Your task to perform on an android device: allow cookies in the chrome app Image 0: 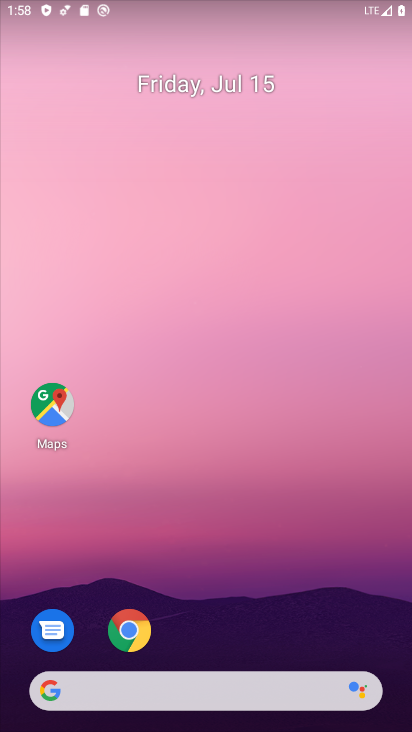
Step 0: press home button
Your task to perform on an android device: allow cookies in the chrome app Image 1: 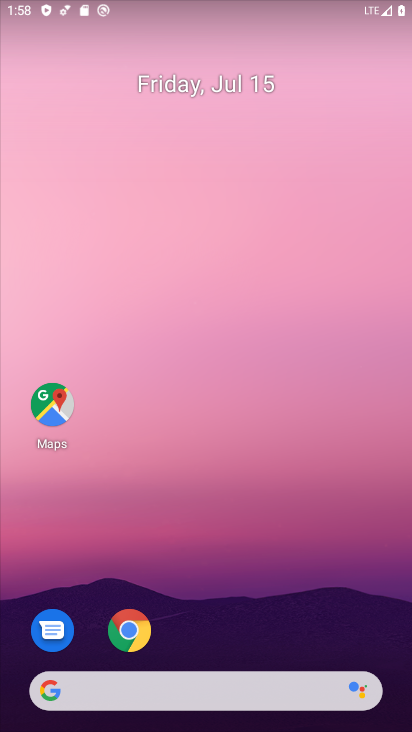
Step 1: click (137, 632)
Your task to perform on an android device: allow cookies in the chrome app Image 2: 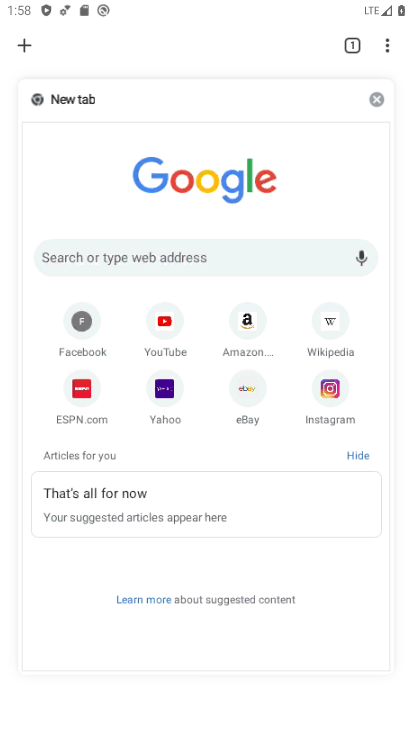
Step 2: drag from (389, 45) to (220, 165)
Your task to perform on an android device: allow cookies in the chrome app Image 3: 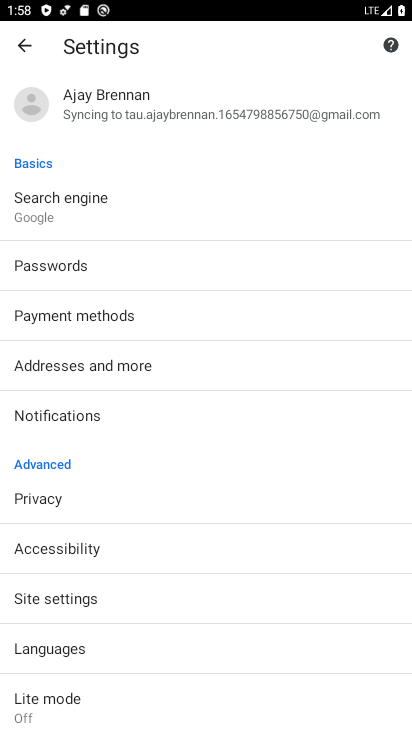
Step 3: click (46, 590)
Your task to perform on an android device: allow cookies in the chrome app Image 4: 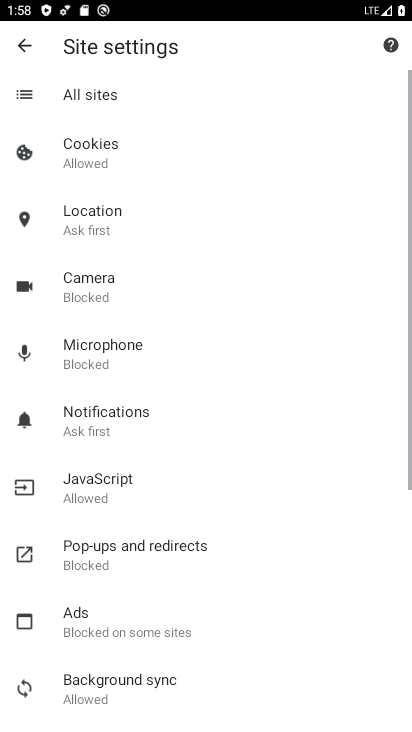
Step 4: click (90, 147)
Your task to perform on an android device: allow cookies in the chrome app Image 5: 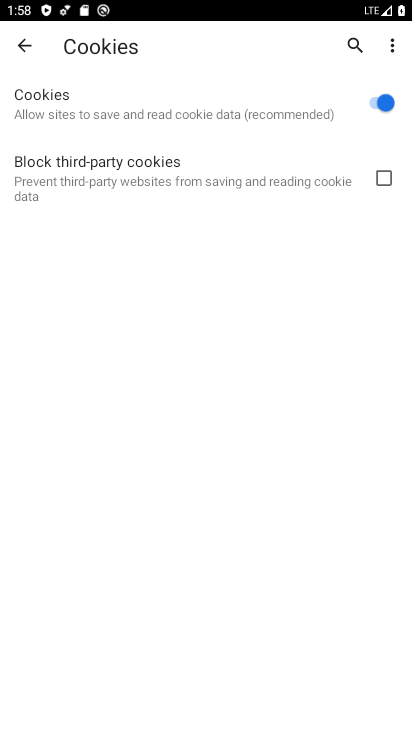
Step 5: task complete